Your task to perform on an android device: turn pop-ups off in chrome Image 0: 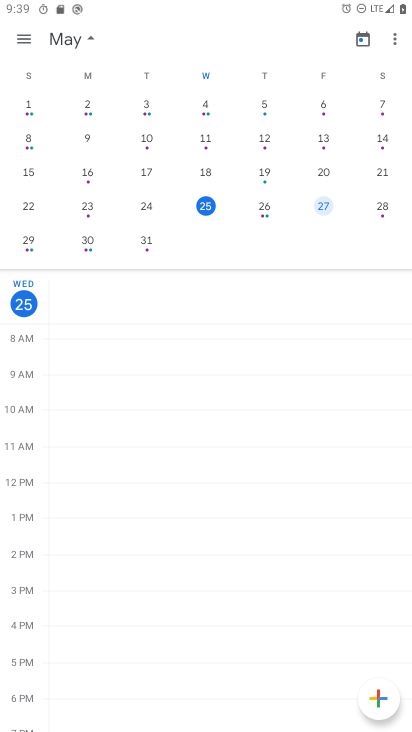
Step 0: press home button
Your task to perform on an android device: turn pop-ups off in chrome Image 1: 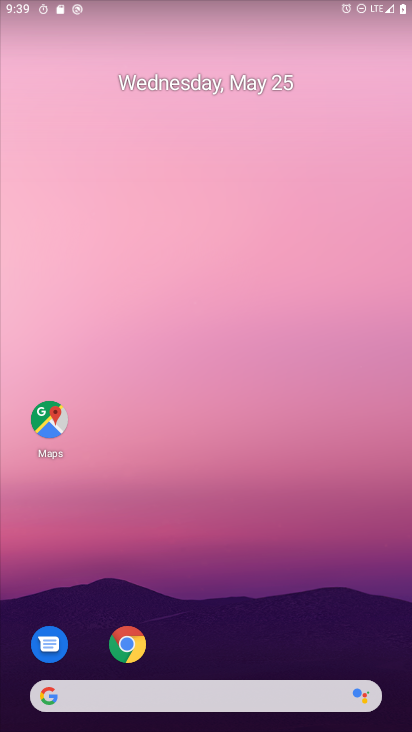
Step 1: drag from (337, 582) to (215, 48)
Your task to perform on an android device: turn pop-ups off in chrome Image 2: 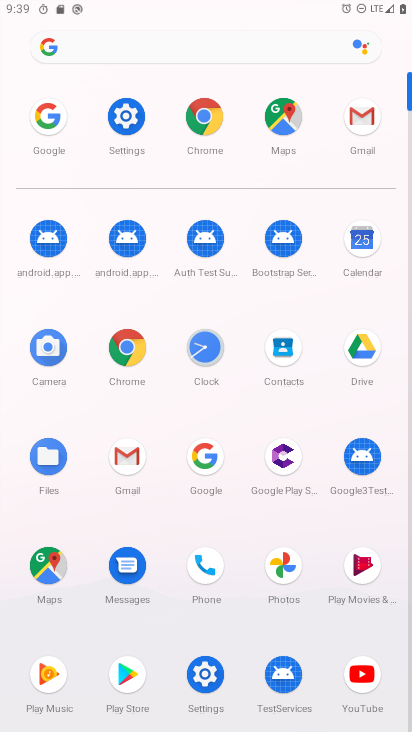
Step 2: click (137, 355)
Your task to perform on an android device: turn pop-ups off in chrome Image 3: 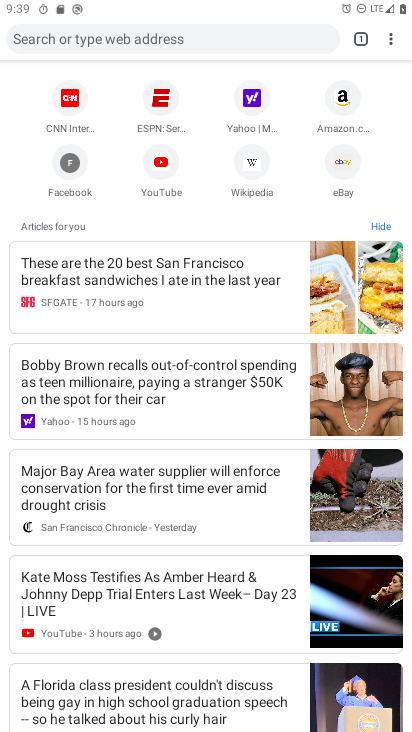
Step 3: click (388, 35)
Your task to perform on an android device: turn pop-ups off in chrome Image 4: 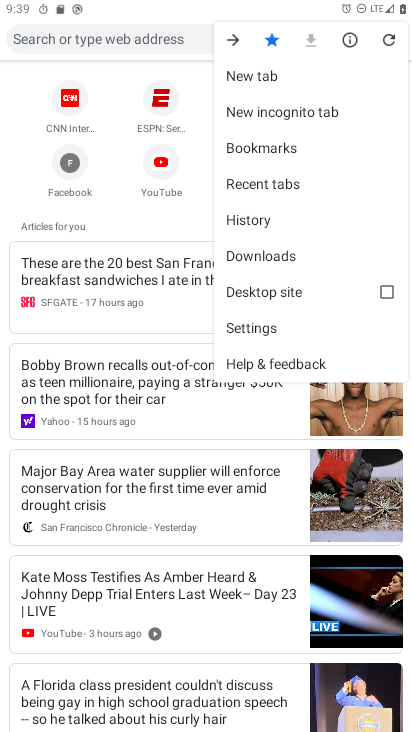
Step 4: click (261, 332)
Your task to perform on an android device: turn pop-ups off in chrome Image 5: 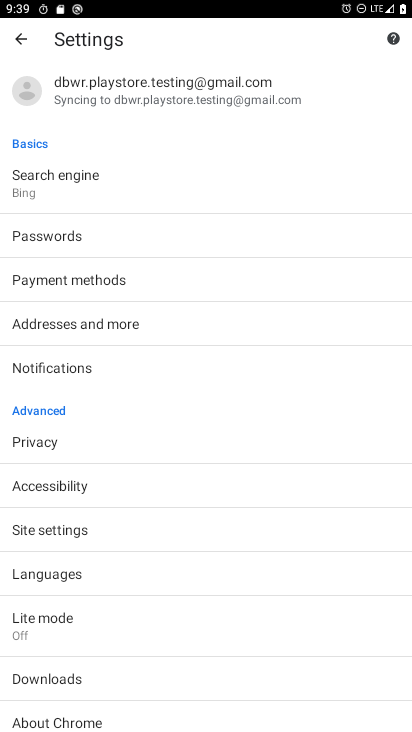
Step 5: click (85, 524)
Your task to perform on an android device: turn pop-ups off in chrome Image 6: 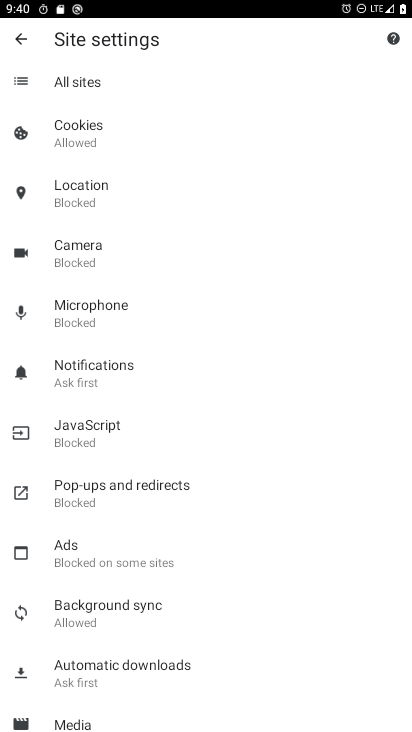
Step 6: click (130, 485)
Your task to perform on an android device: turn pop-ups off in chrome Image 7: 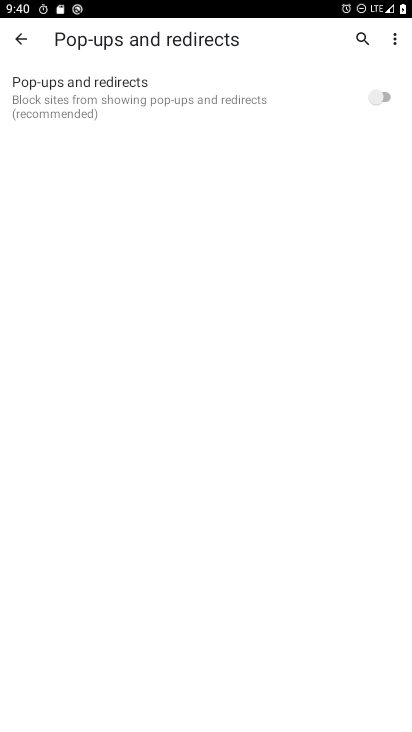
Step 7: task complete